Your task to perform on an android device: Open calendar and show me the first week of next month Image 0: 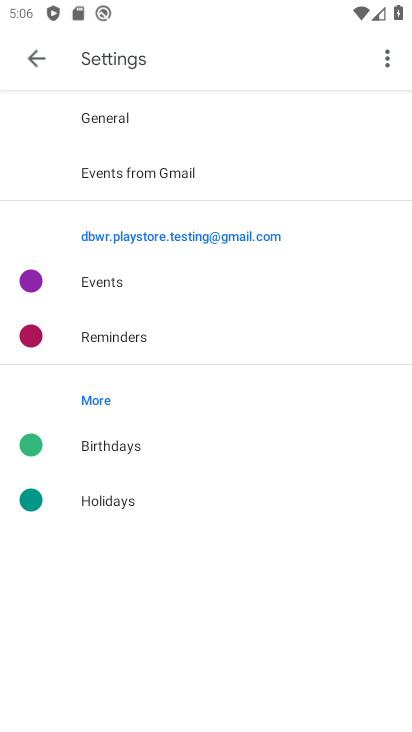
Step 0: press back button
Your task to perform on an android device: Open calendar and show me the first week of next month Image 1: 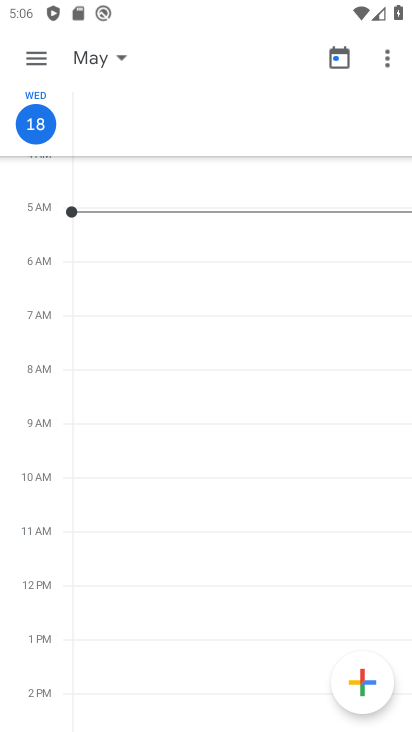
Step 1: press back button
Your task to perform on an android device: Open calendar and show me the first week of next month Image 2: 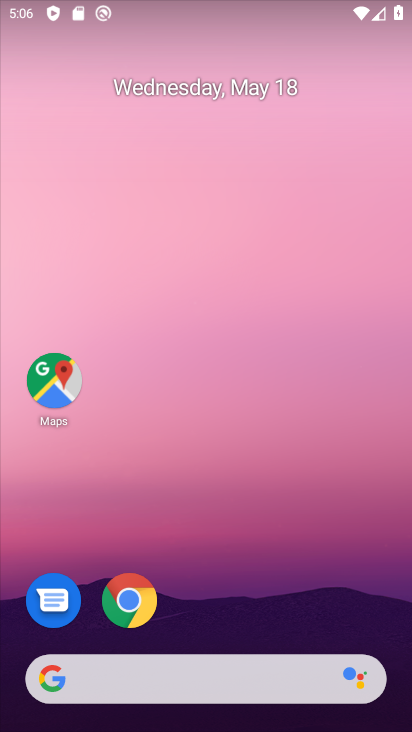
Step 2: drag from (250, 609) to (189, 134)
Your task to perform on an android device: Open calendar and show me the first week of next month Image 3: 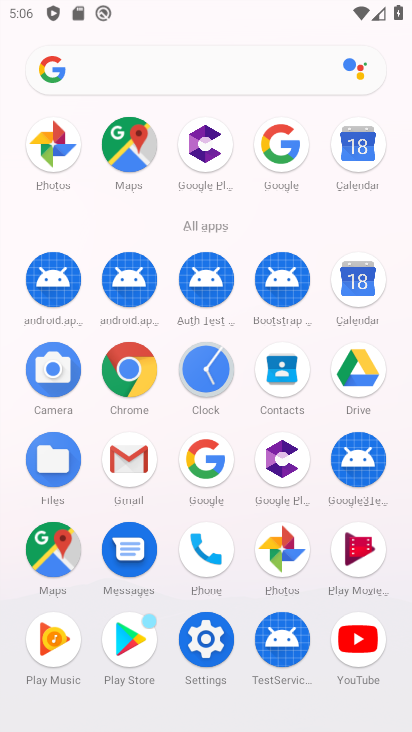
Step 3: click (362, 282)
Your task to perform on an android device: Open calendar and show me the first week of next month Image 4: 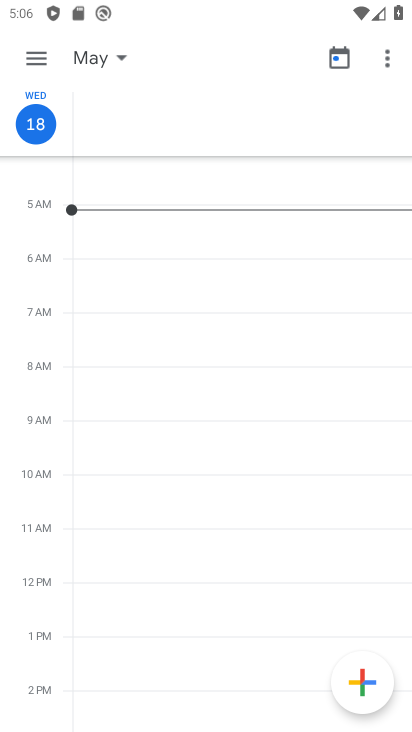
Step 4: click (334, 56)
Your task to perform on an android device: Open calendar and show me the first week of next month Image 5: 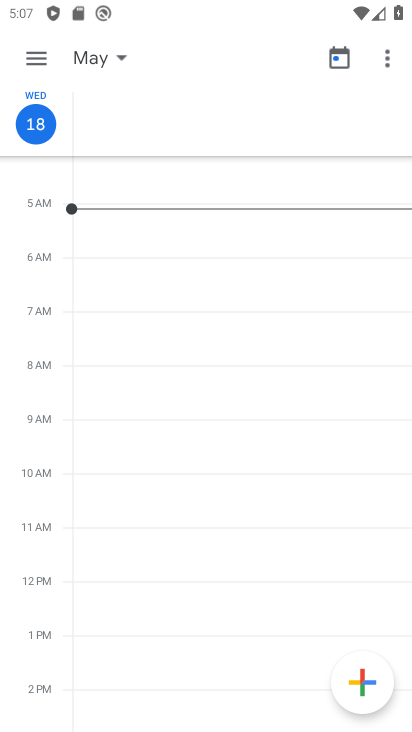
Step 5: click (118, 58)
Your task to perform on an android device: Open calendar and show me the first week of next month Image 6: 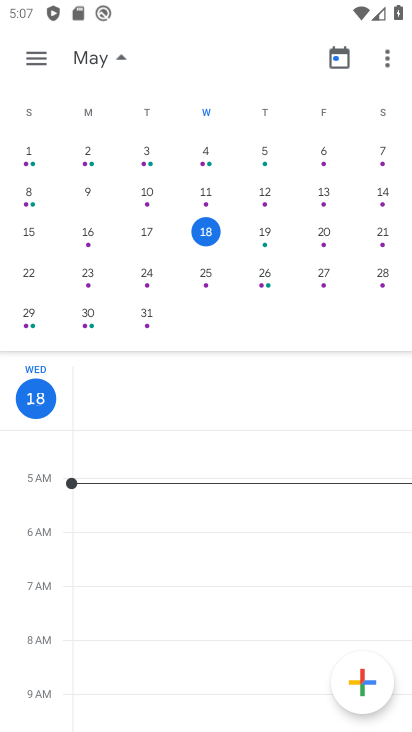
Step 6: drag from (365, 228) to (12, 249)
Your task to perform on an android device: Open calendar and show me the first week of next month Image 7: 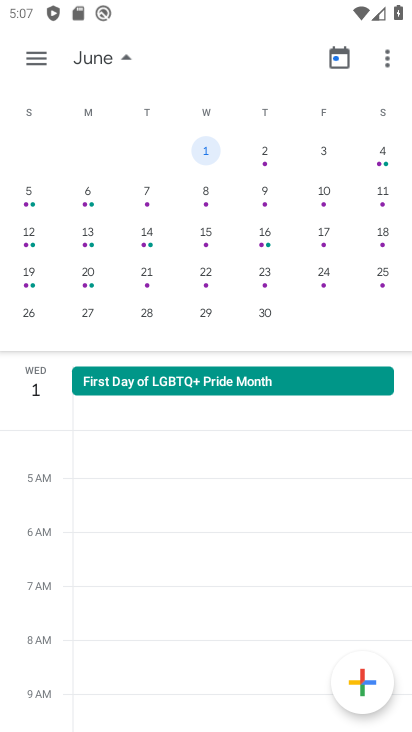
Step 7: click (91, 190)
Your task to perform on an android device: Open calendar and show me the first week of next month Image 8: 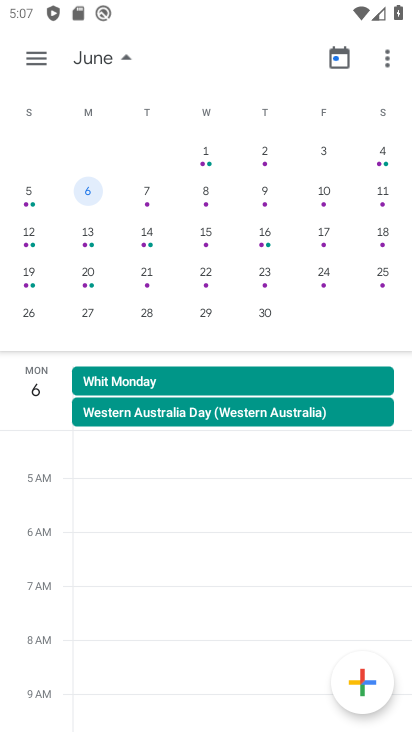
Step 8: click (36, 59)
Your task to perform on an android device: Open calendar and show me the first week of next month Image 9: 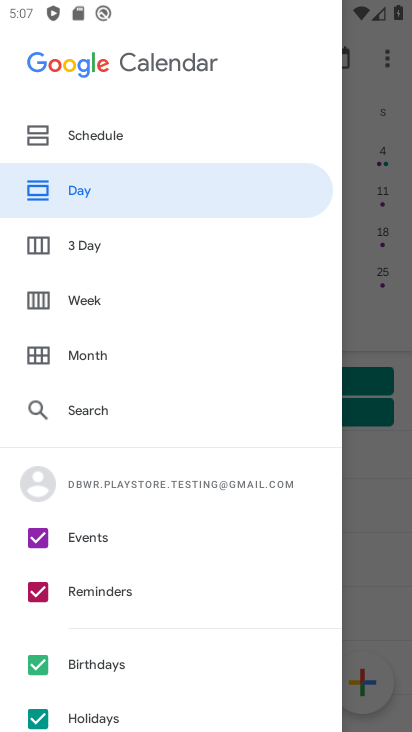
Step 9: click (94, 298)
Your task to perform on an android device: Open calendar and show me the first week of next month Image 10: 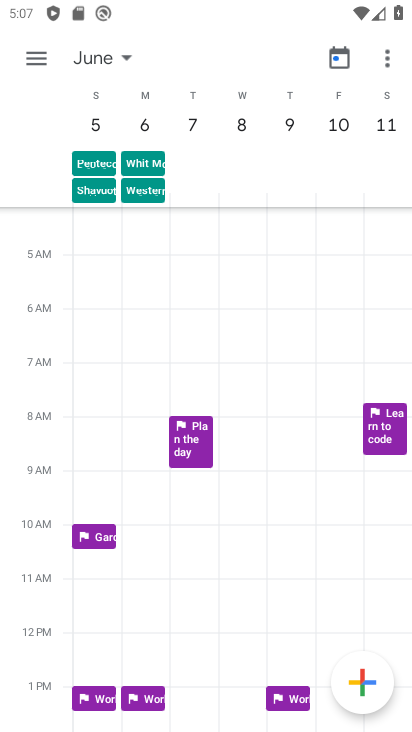
Step 10: task complete